Your task to perform on an android device: empty trash in google photos Image 0: 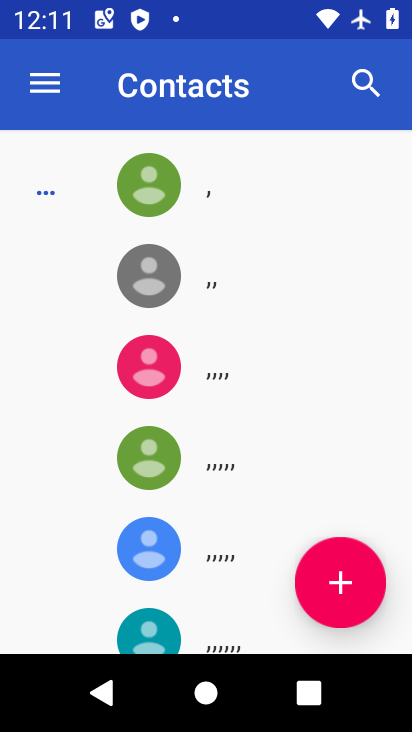
Step 0: drag from (230, 406) to (252, 325)
Your task to perform on an android device: empty trash in google photos Image 1: 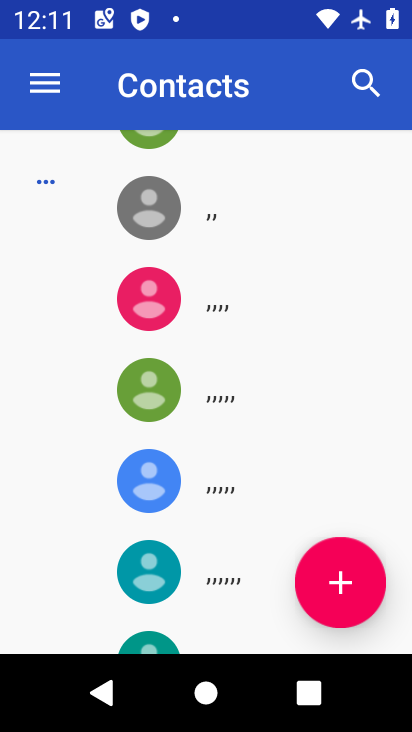
Step 1: press home button
Your task to perform on an android device: empty trash in google photos Image 2: 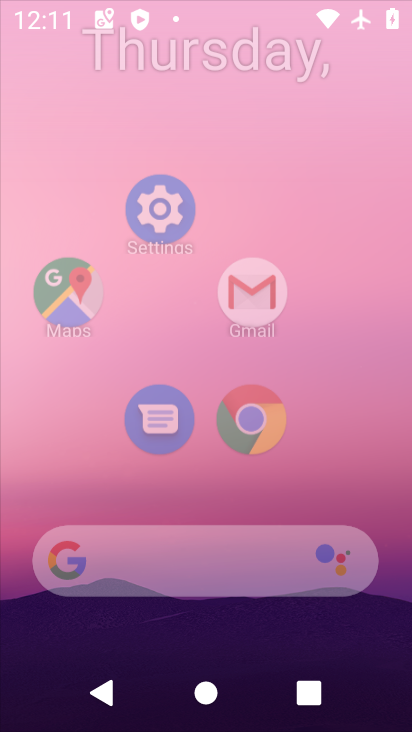
Step 2: drag from (206, 266) to (232, 132)
Your task to perform on an android device: empty trash in google photos Image 3: 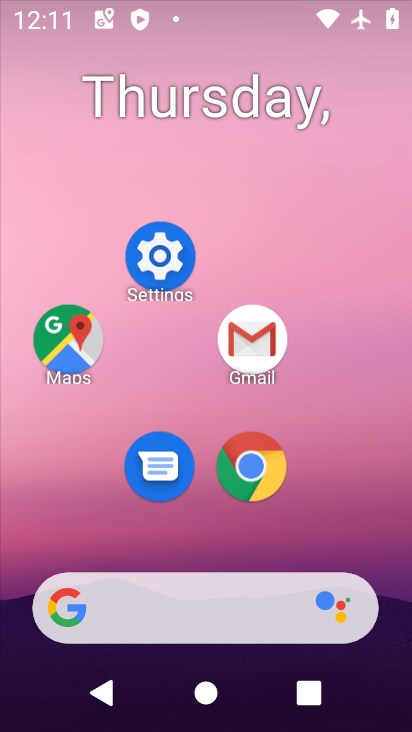
Step 3: click (247, 124)
Your task to perform on an android device: empty trash in google photos Image 4: 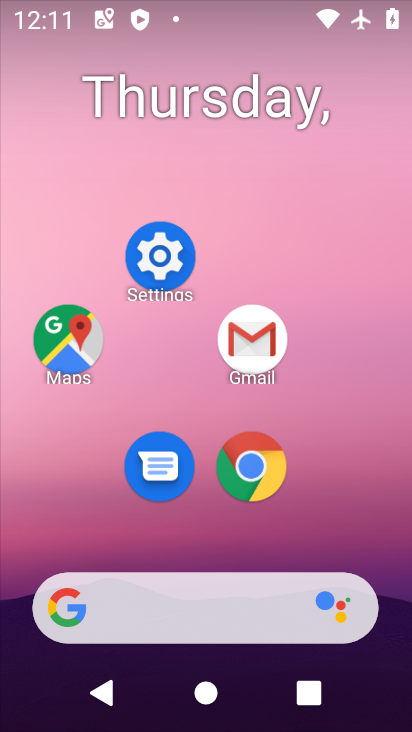
Step 4: drag from (200, 499) to (192, 33)
Your task to perform on an android device: empty trash in google photos Image 5: 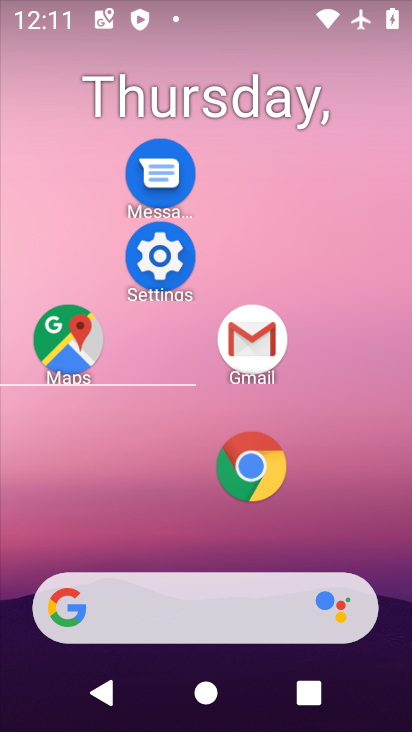
Step 5: drag from (221, 475) to (326, 32)
Your task to perform on an android device: empty trash in google photos Image 6: 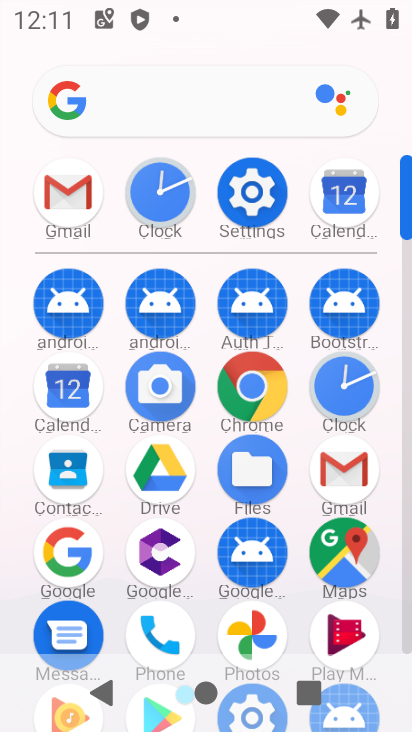
Step 6: drag from (198, 641) to (377, 6)
Your task to perform on an android device: empty trash in google photos Image 7: 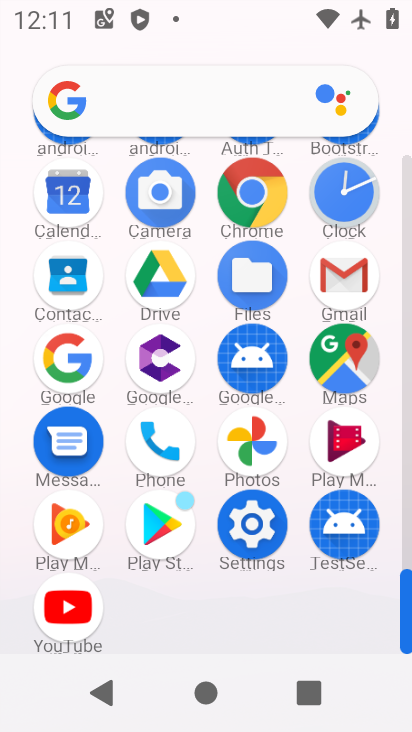
Step 7: click (256, 448)
Your task to perform on an android device: empty trash in google photos Image 8: 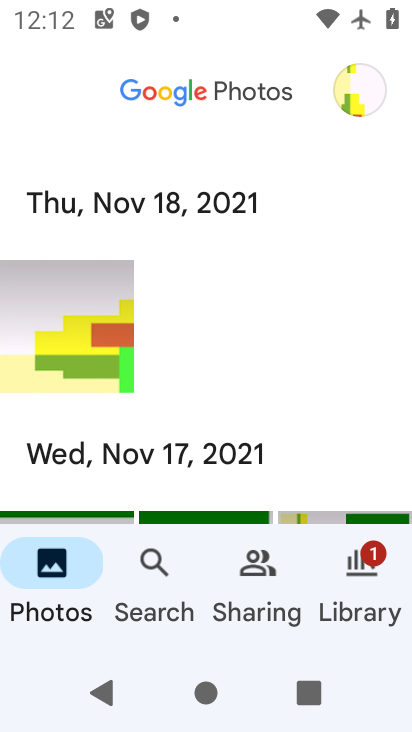
Step 8: click (325, 564)
Your task to perform on an android device: empty trash in google photos Image 9: 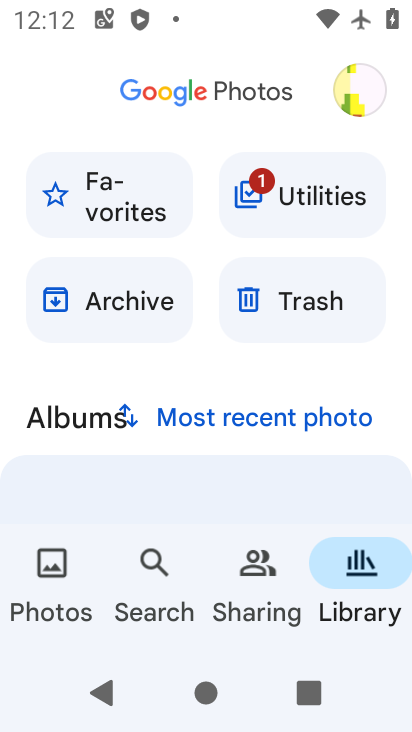
Step 9: click (226, 312)
Your task to perform on an android device: empty trash in google photos Image 10: 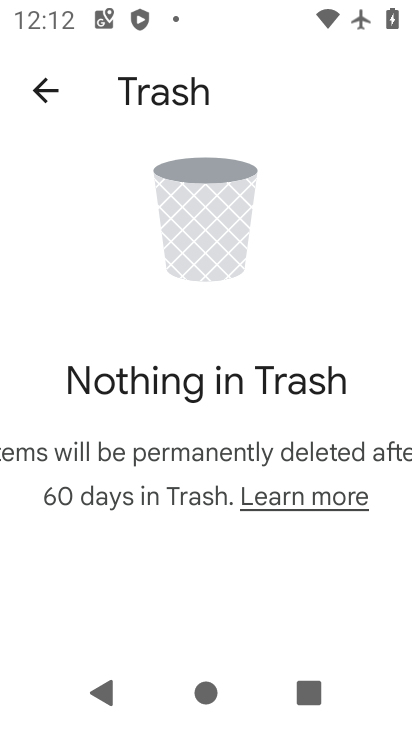
Step 10: task complete